Your task to perform on an android device: Open Google Maps Image 0: 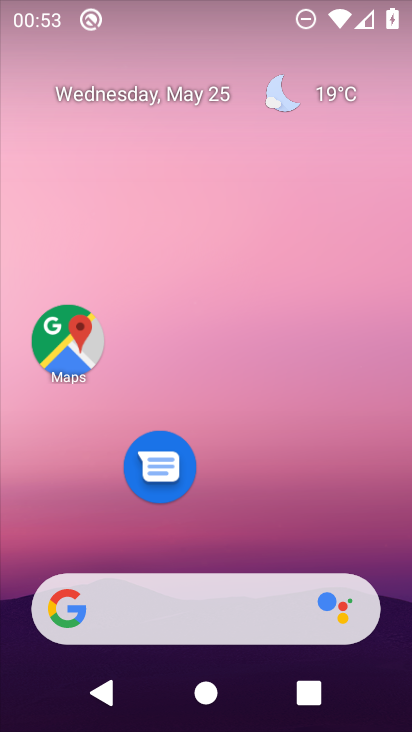
Step 0: click (68, 341)
Your task to perform on an android device: Open Google Maps Image 1: 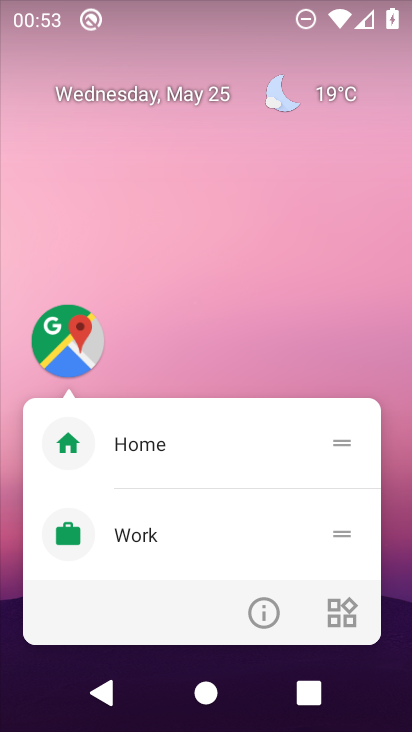
Step 1: click (268, 593)
Your task to perform on an android device: Open Google Maps Image 2: 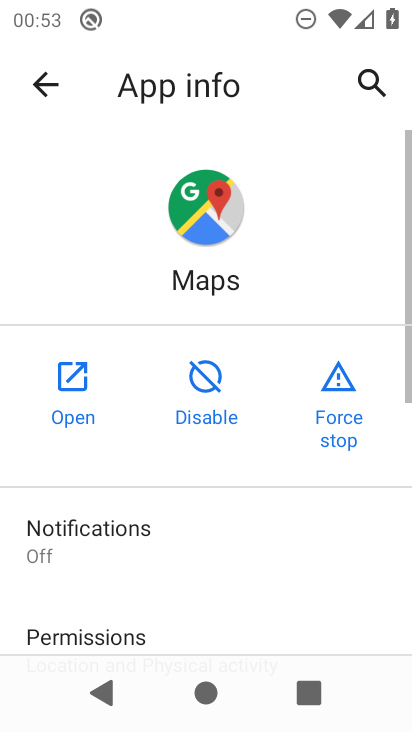
Step 2: click (69, 363)
Your task to perform on an android device: Open Google Maps Image 3: 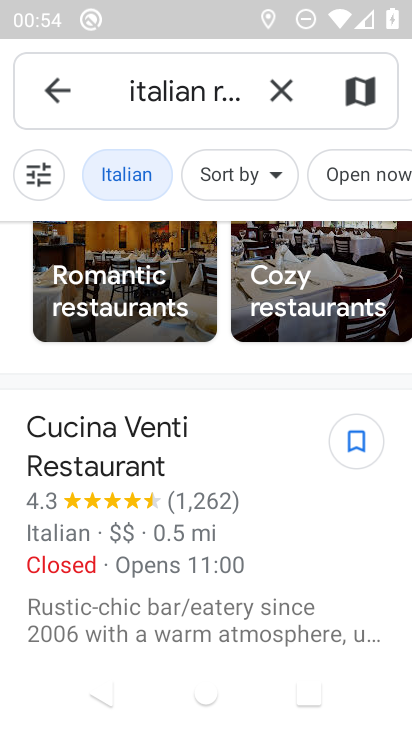
Step 3: task complete